Your task to perform on an android device: What's the weather going to be tomorrow? Image 0: 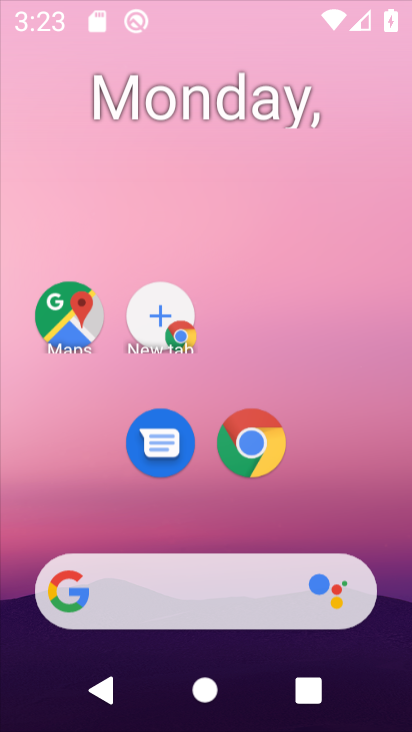
Step 0: press home button
Your task to perform on an android device: What's the weather going to be tomorrow? Image 1: 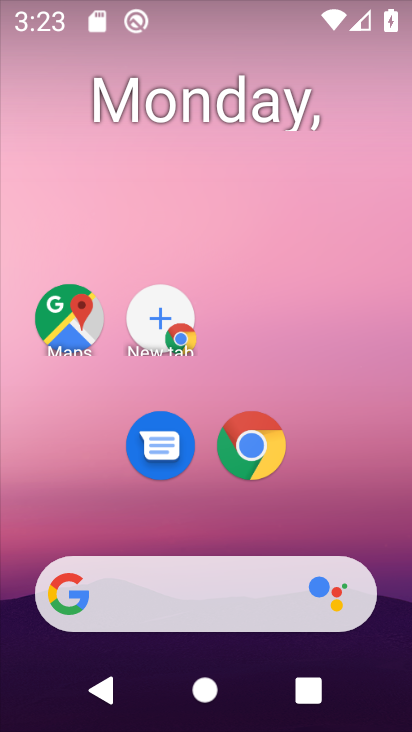
Step 1: drag from (214, 530) to (201, 42)
Your task to perform on an android device: What's the weather going to be tomorrow? Image 2: 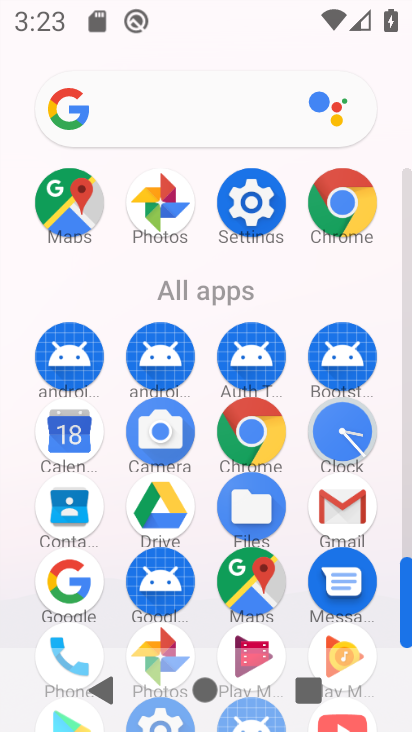
Step 2: drag from (201, 250) to (266, 730)
Your task to perform on an android device: What's the weather going to be tomorrow? Image 3: 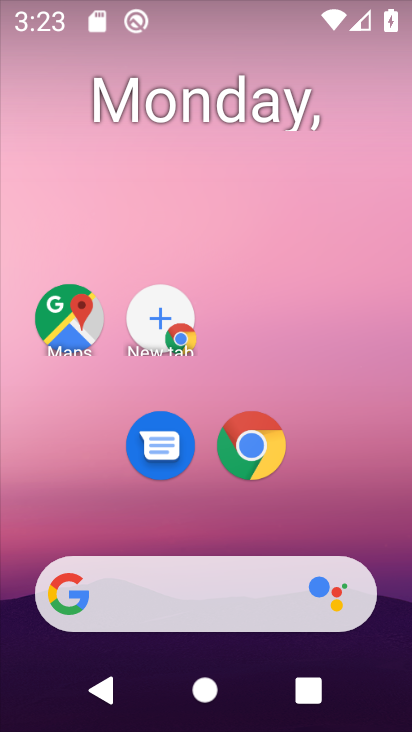
Step 3: drag from (69, 221) to (395, 228)
Your task to perform on an android device: What's the weather going to be tomorrow? Image 4: 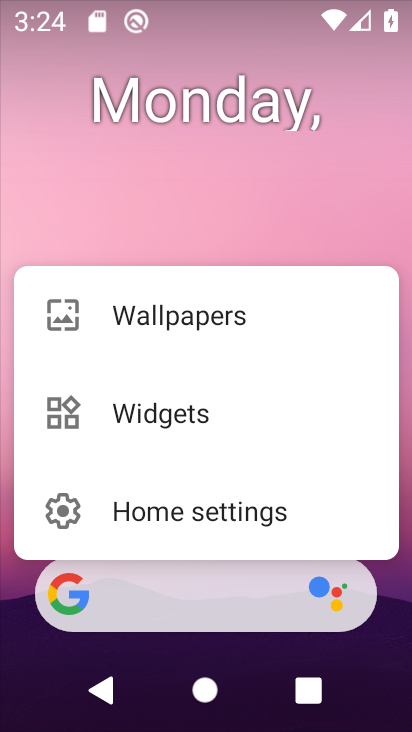
Step 4: click (28, 175)
Your task to perform on an android device: What's the weather going to be tomorrow? Image 5: 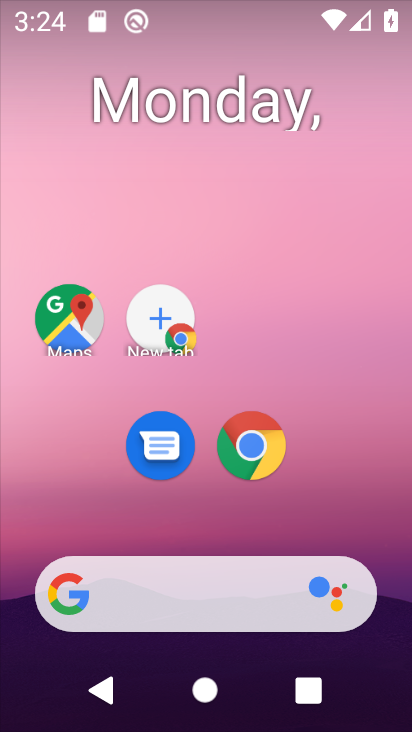
Step 5: drag from (27, 186) to (373, 154)
Your task to perform on an android device: What's the weather going to be tomorrow? Image 6: 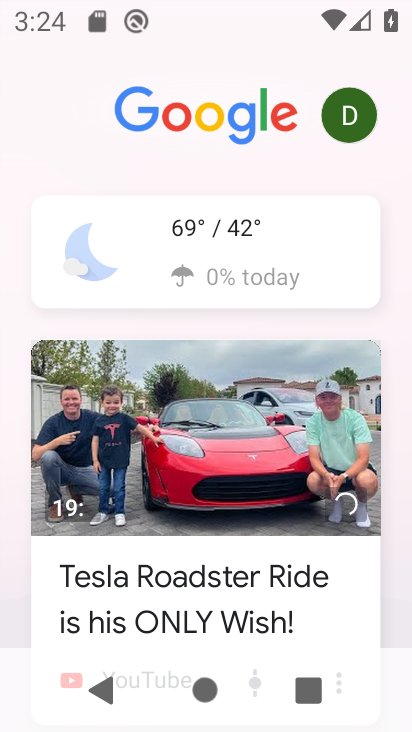
Step 6: click (151, 242)
Your task to perform on an android device: What's the weather going to be tomorrow? Image 7: 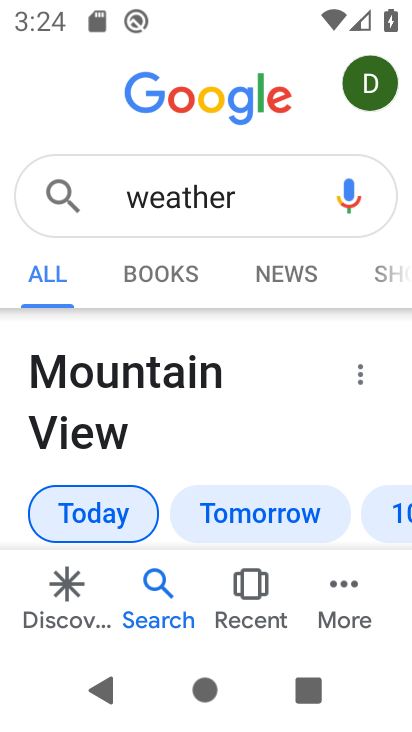
Step 7: click (274, 515)
Your task to perform on an android device: What's the weather going to be tomorrow? Image 8: 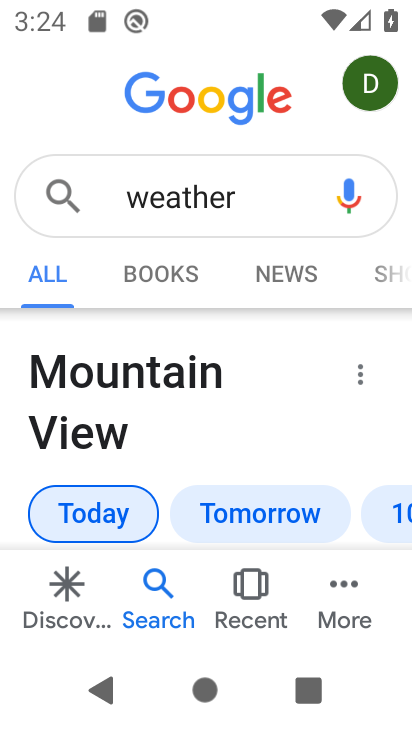
Step 8: click (253, 515)
Your task to perform on an android device: What's the weather going to be tomorrow? Image 9: 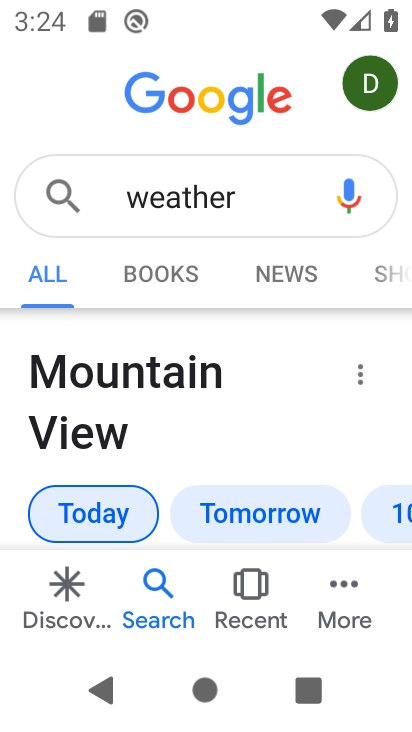
Step 9: drag from (216, 493) to (228, 218)
Your task to perform on an android device: What's the weather going to be tomorrow? Image 10: 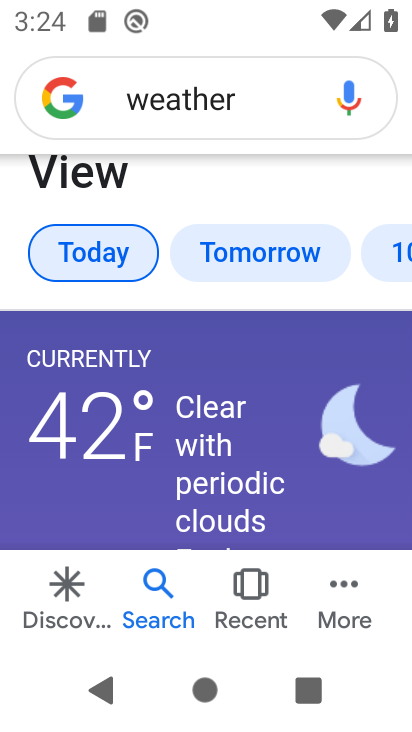
Step 10: click (267, 258)
Your task to perform on an android device: What's the weather going to be tomorrow? Image 11: 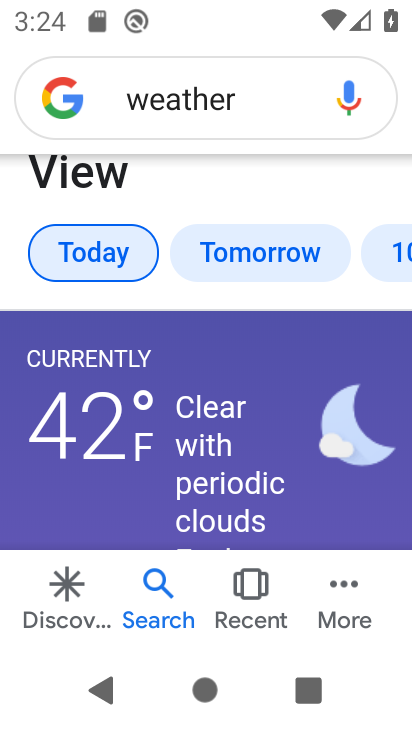
Step 11: click (260, 255)
Your task to perform on an android device: What's the weather going to be tomorrow? Image 12: 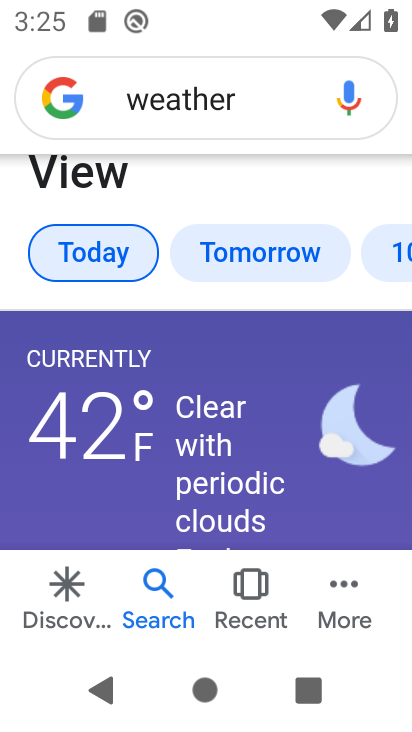
Step 12: task complete